Your task to perform on an android device: remove spam from my inbox in the gmail app Image 0: 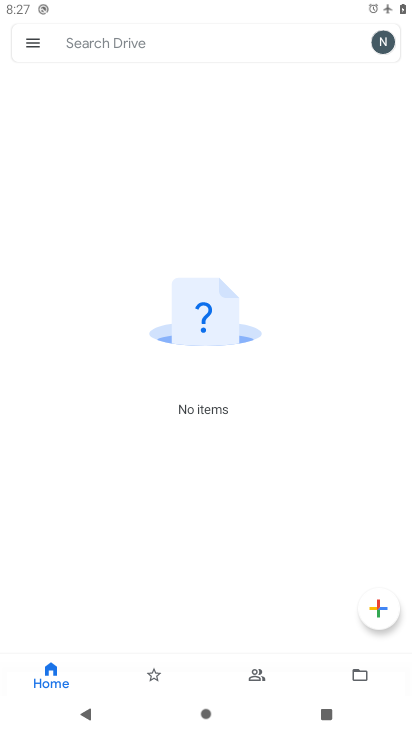
Step 0: press home button
Your task to perform on an android device: remove spam from my inbox in the gmail app Image 1: 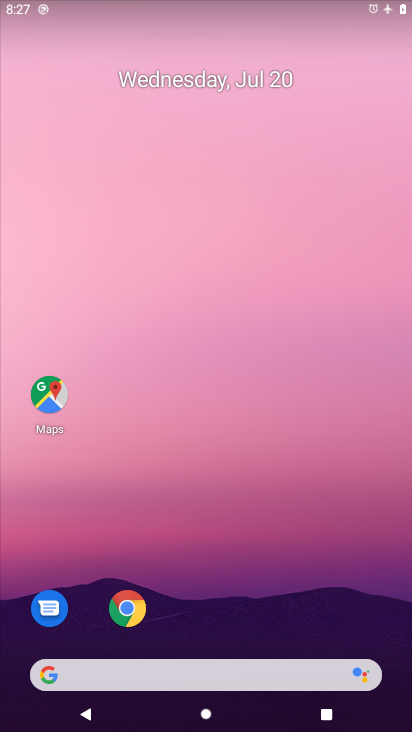
Step 1: drag from (223, 657) to (283, 2)
Your task to perform on an android device: remove spam from my inbox in the gmail app Image 2: 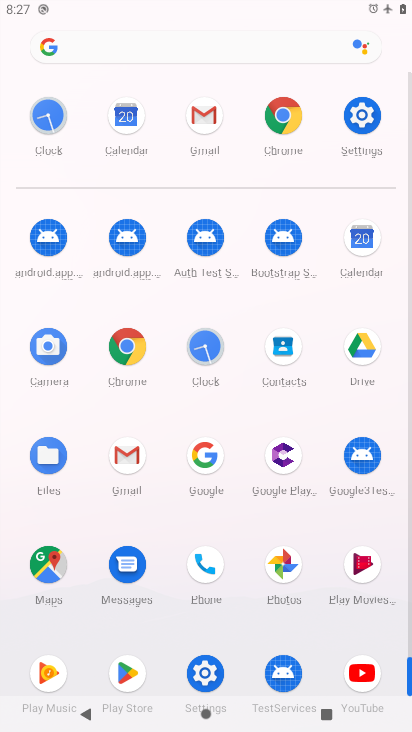
Step 2: click (140, 450)
Your task to perform on an android device: remove spam from my inbox in the gmail app Image 3: 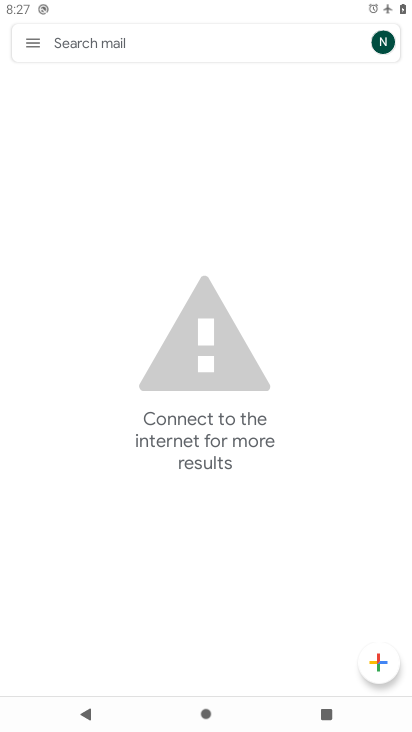
Step 3: click (28, 49)
Your task to perform on an android device: remove spam from my inbox in the gmail app Image 4: 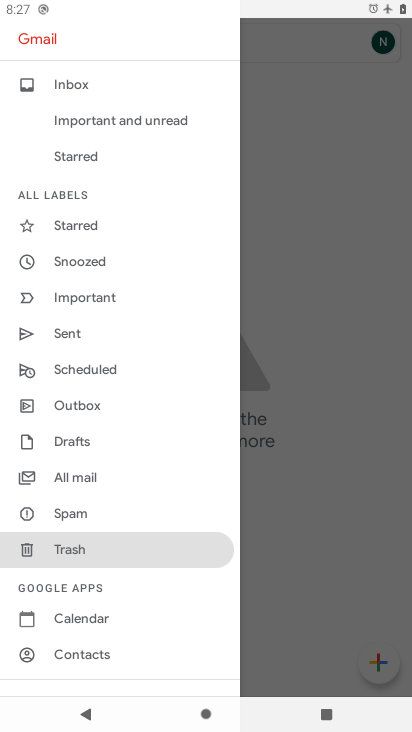
Step 4: click (94, 511)
Your task to perform on an android device: remove spam from my inbox in the gmail app Image 5: 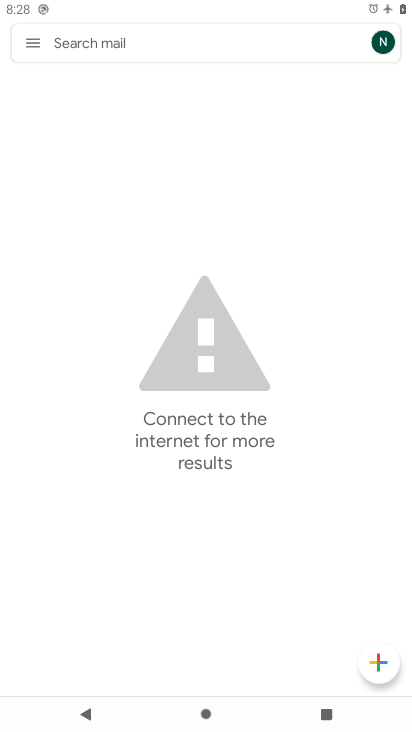
Step 5: task complete